Your task to perform on an android device: Open Google Maps Image 0: 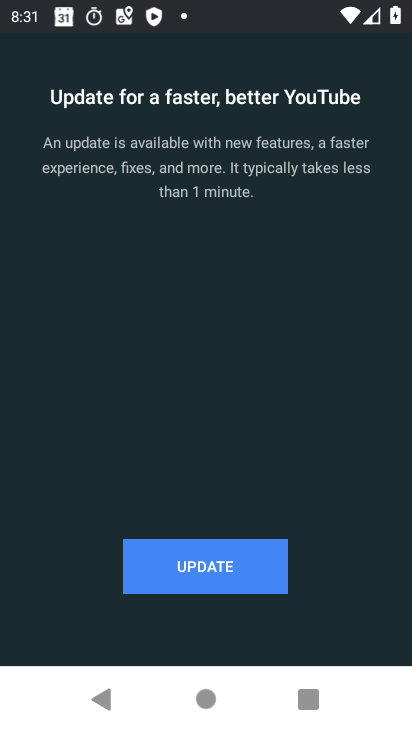
Step 0: press home button
Your task to perform on an android device: Open Google Maps Image 1: 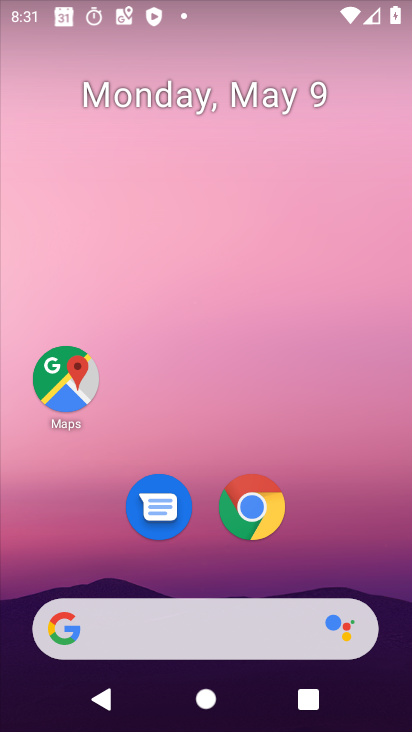
Step 1: drag from (322, 655) to (265, 142)
Your task to perform on an android device: Open Google Maps Image 2: 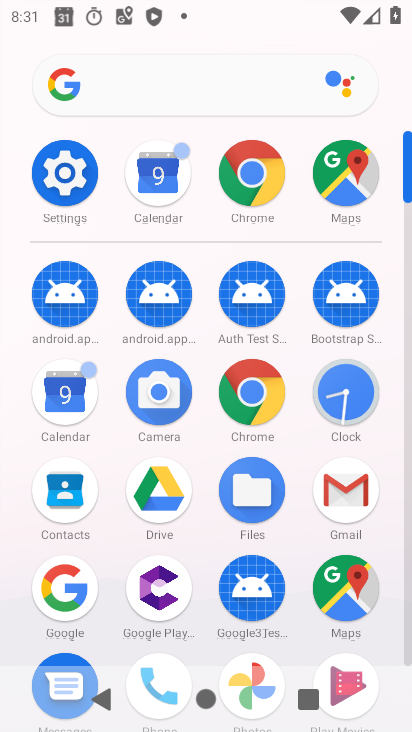
Step 2: click (351, 596)
Your task to perform on an android device: Open Google Maps Image 3: 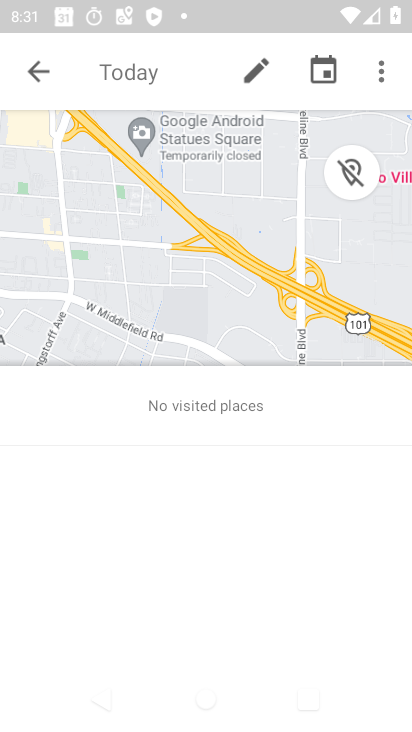
Step 3: click (41, 73)
Your task to perform on an android device: Open Google Maps Image 4: 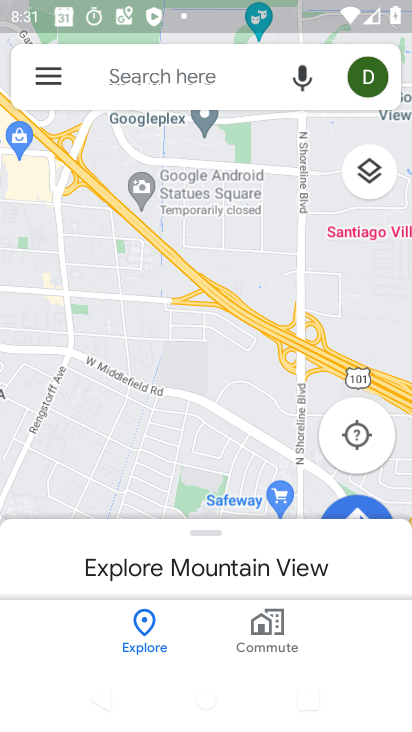
Step 4: click (356, 422)
Your task to perform on an android device: Open Google Maps Image 5: 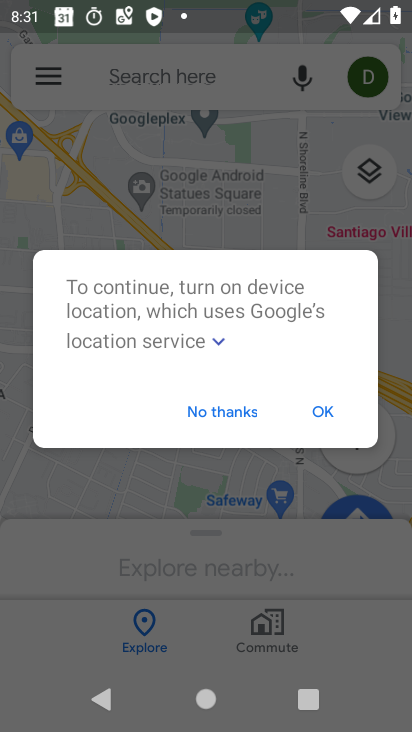
Step 5: click (242, 417)
Your task to perform on an android device: Open Google Maps Image 6: 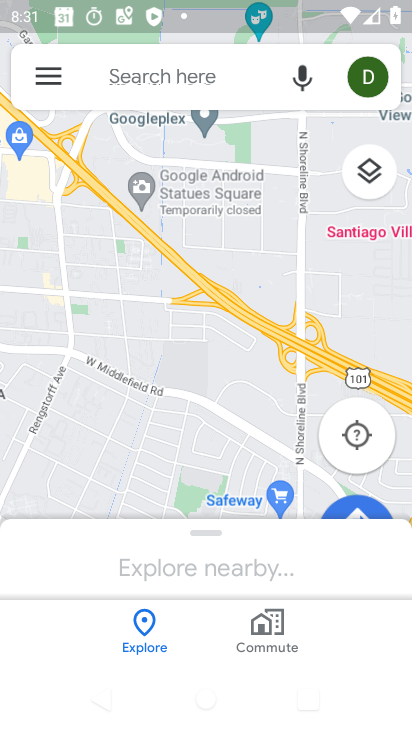
Step 6: task complete